Your task to perform on an android device: Open Google Maps Image 0: 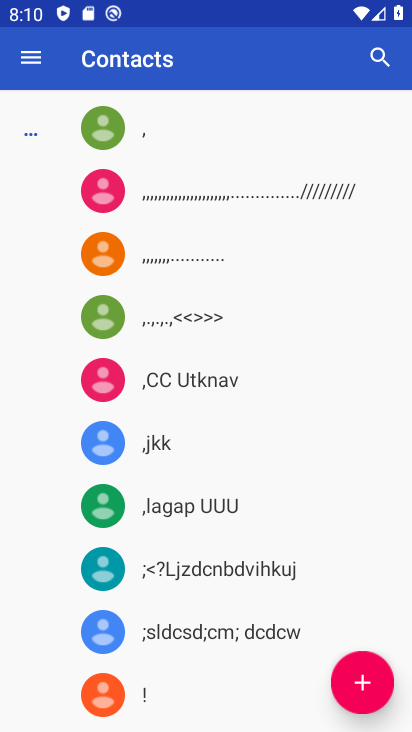
Step 0: press home button
Your task to perform on an android device: Open Google Maps Image 1: 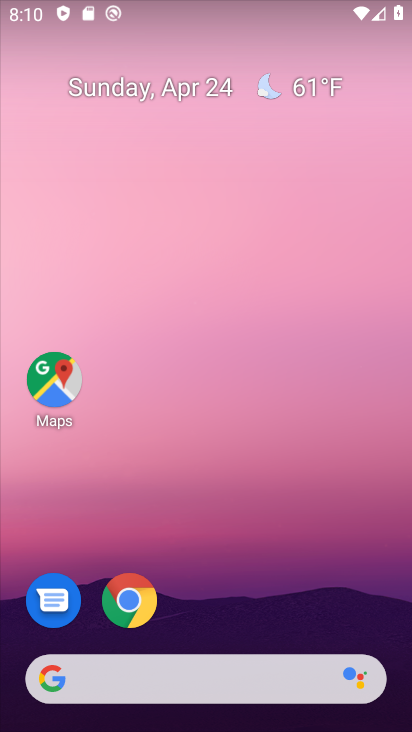
Step 1: drag from (218, 722) to (199, 53)
Your task to perform on an android device: Open Google Maps Image 2: 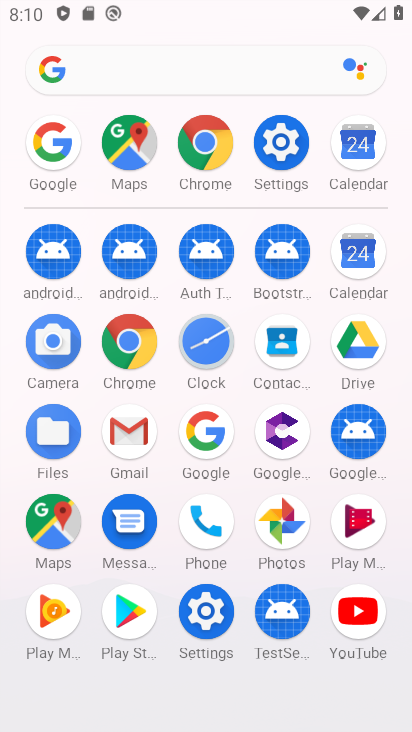
Step 2: click (131, 138)
Your task to perform on an android device: Open Google Maps Image 3: 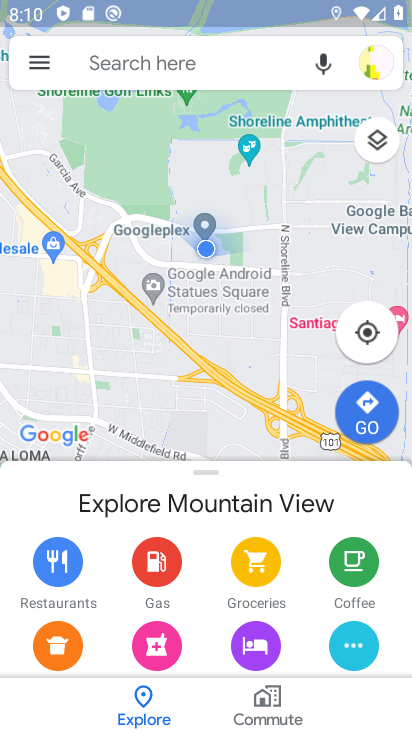
Step 3: task complete